Your task to perform on an android device: move a message to another label in the gmail app Image 0: 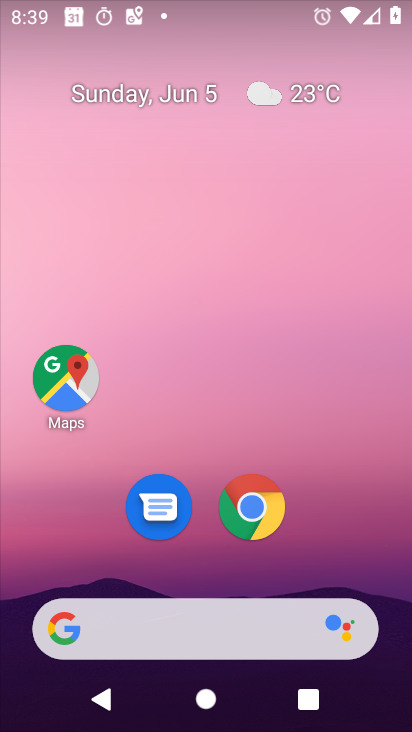
Step 0: drag from (223, 667) to (253, 142)
Your task to perform on an android device: move a message to another label in the gmail app Image 1: 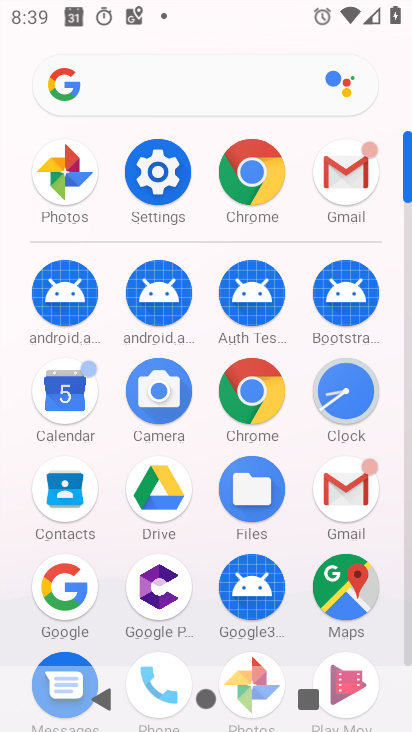
Step 1: click (357, 488)
Your task to perform on an android device: move a message to another label in the gmail app Image 2: 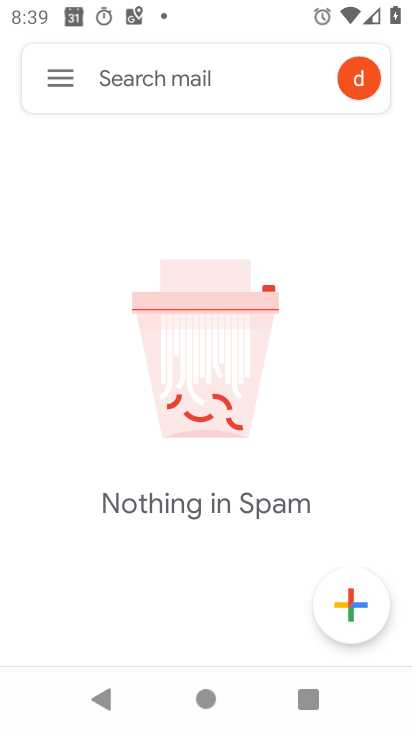
Step 2: click (33, 69)
Your task to perform on an android device: move a message to another label in the gmail app Image 3: 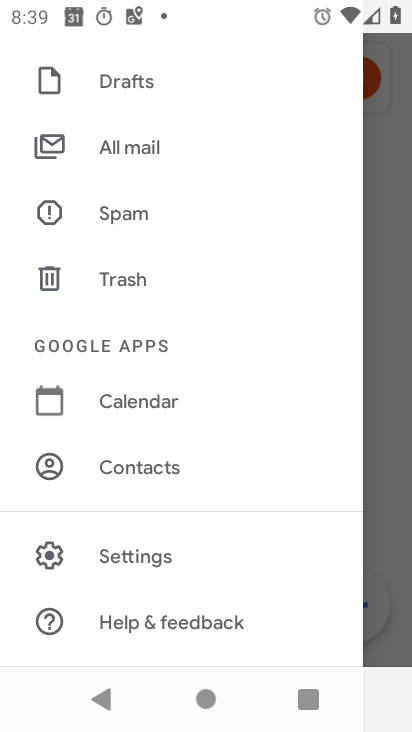
Step 3: click (144, 554)
Your task to perform on an android device: move a message to another label in the gmail app Image 4: 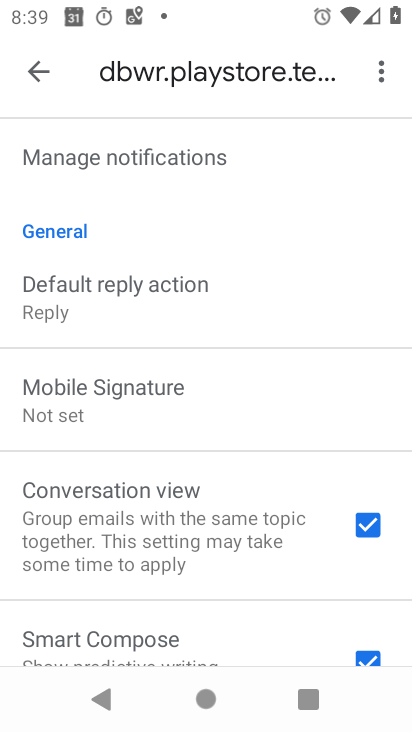
Step 4: drag from (139, 334) to (158, 502)
Your task to perform on an android device: move a message to another label in the gmail app Image 5: 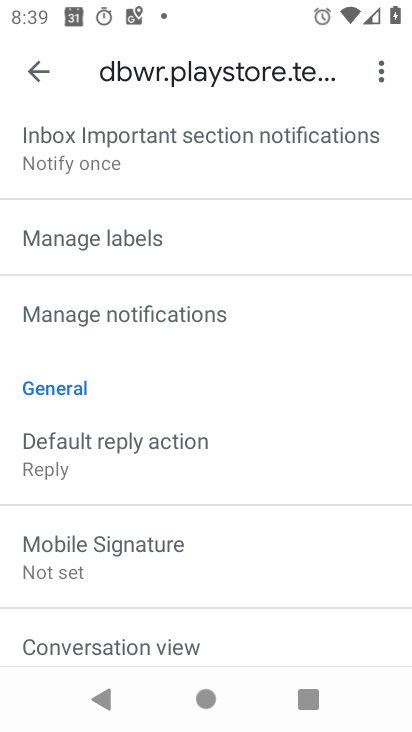
Step 5: click (72, 261)
Your task to perform on an android device: move a message to another label in the gmail app Image 6: 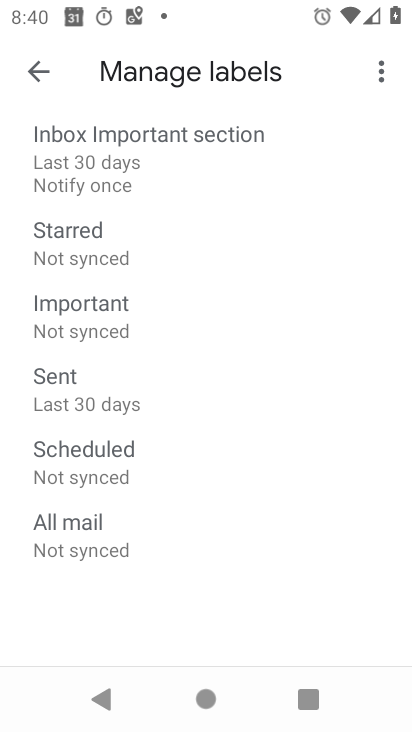
Step 6: click (140, 219)
Your task to perform on an android device: move a message to another label in the gmail app Image 7: 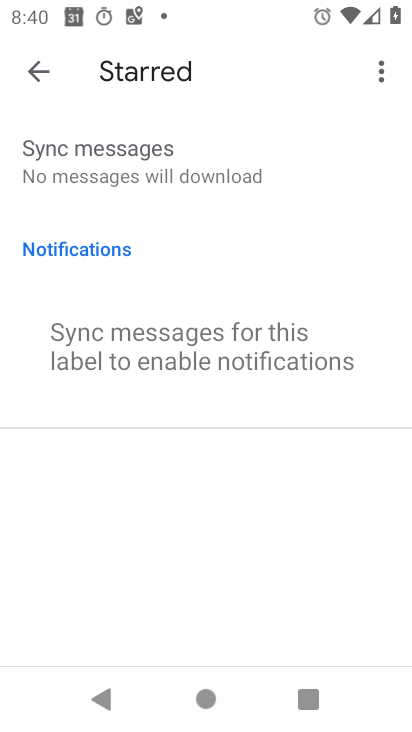
Step 7: task complete